Your task to perform on an android device: turn notification dots off Image 0: 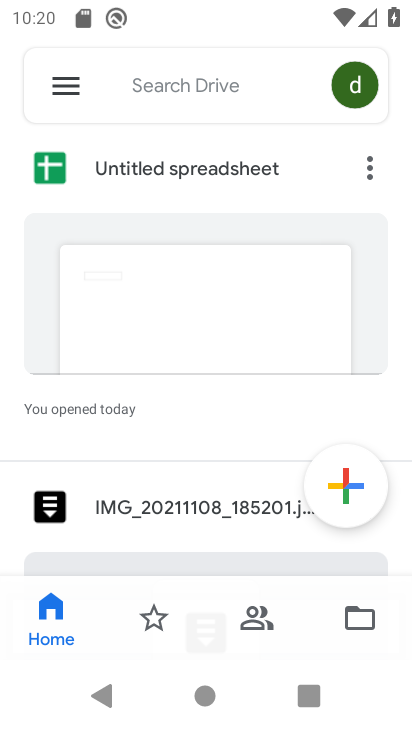
Step 0: press home button
Your task to perform on an android device: turn notification dots off Image 1: 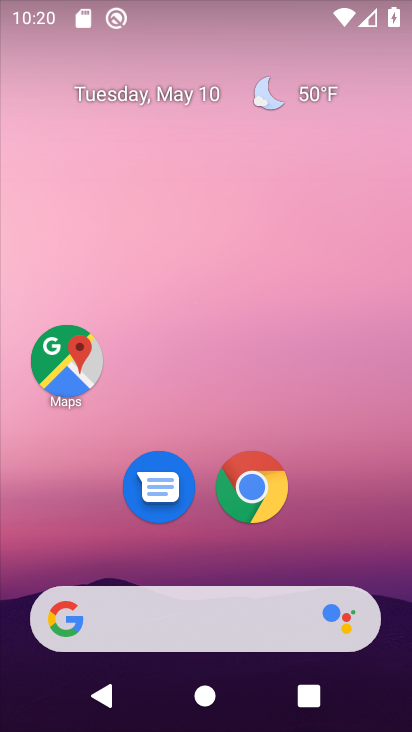
Step 1: drag from (323, 524) to (318, 50)
Your task to perform on an android device: turn notification dots off Image 2: 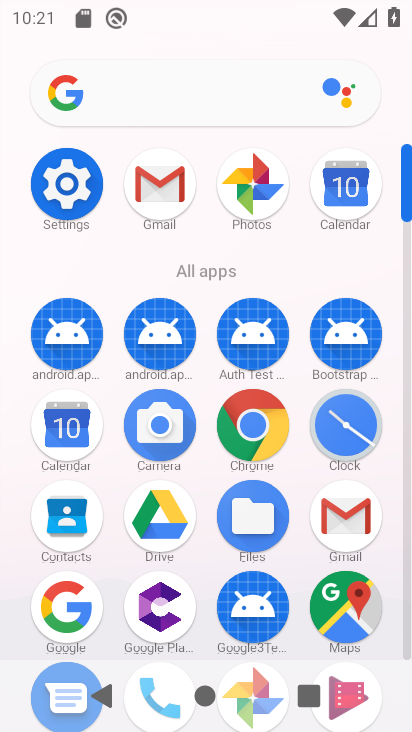
Step 2: click (80, 200)
Your task to perform on an android device: turn notification dots off Image 3: 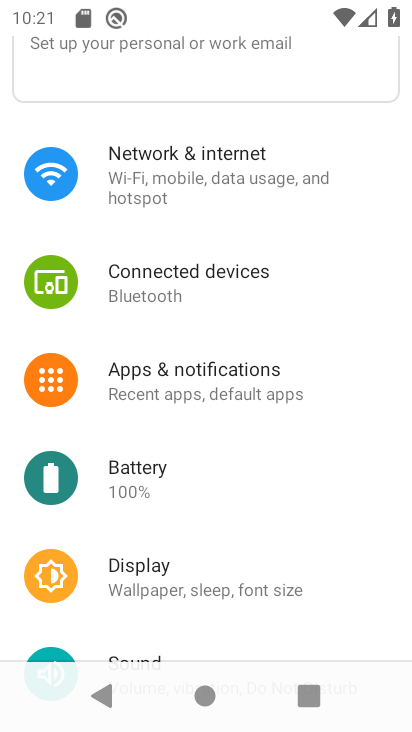
Step 3: drag from (198, 595) to (225, 318)
Your task to perform on an android device: turn notification dots off Image 4: 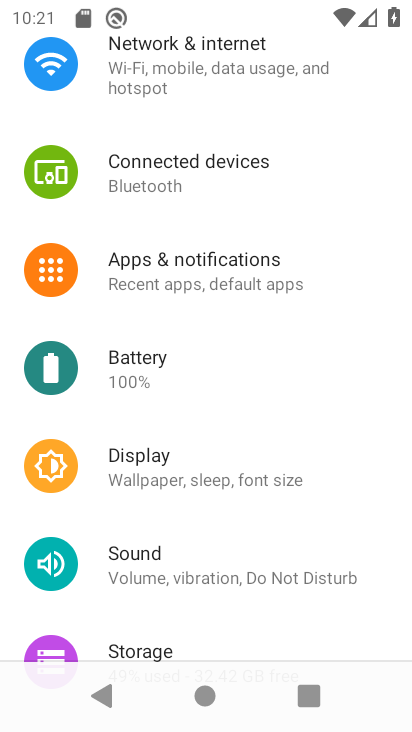
Step 4: click (235, 292)
Your task to perform on an android device: turn notification dots off Image 5: 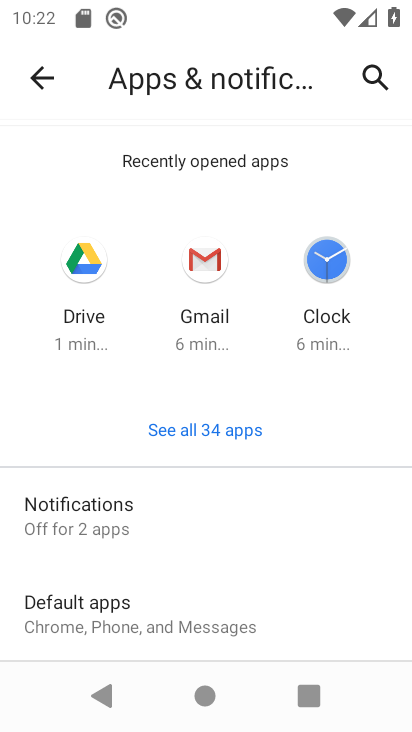
Step 5: click (42, 512)
Your task to perform on an android device: turn notification dots off Image 6: 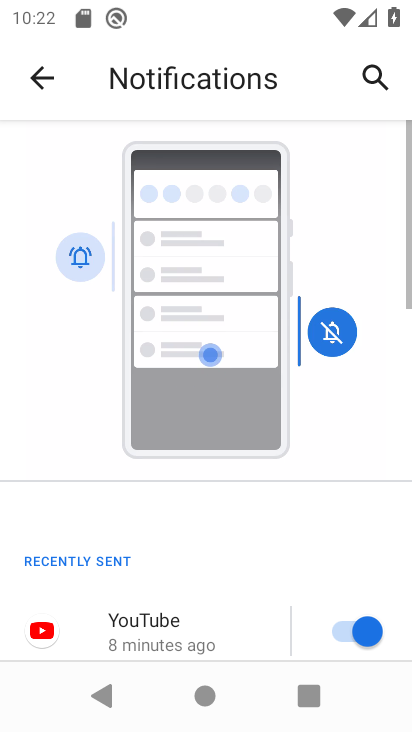
Step 6: drag from (191, 552) to (200, 146)
Your task to perform on an android device: turn notification dots off Image 7: 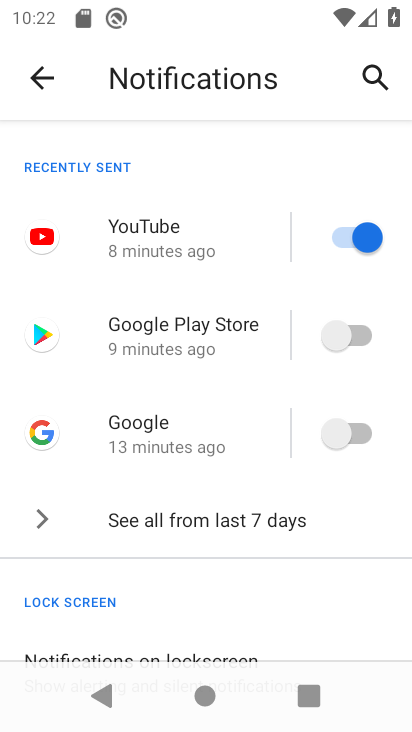
Step 7: drag from (240, 560) to (192, 95)
Your task to perform on an android device: turn notification dots off Image 8: 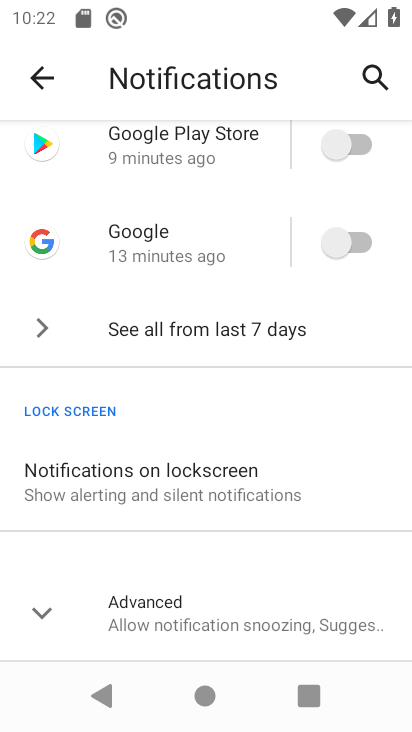
Step 8: click (216, 612)
Your task to perform on an android device: turn notification dots off Image 9: 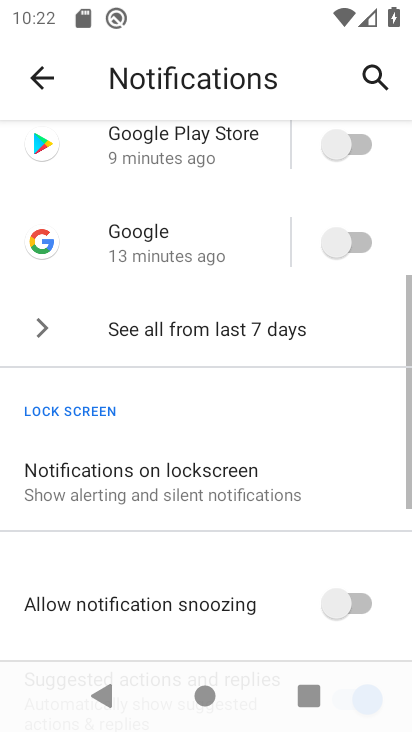
Step 9: drag from (199, 558) to (204, 328)
Your task to perform on an android device: turn notification dots off Image 10: 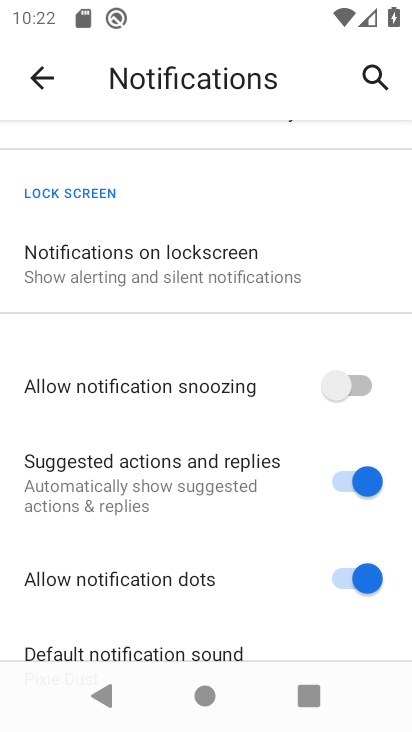
Step 10: click (340, 576)
Your task to perform on an android device: turn notification dots off Image 11: 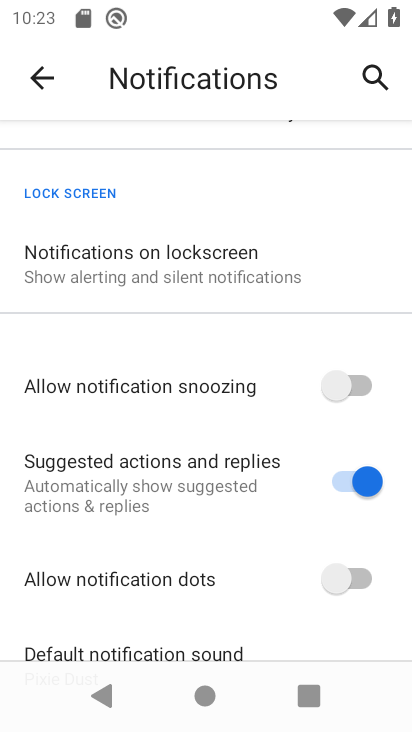
Step 11: task complete